Your task to perform on an android device: turn off airplane mode Image 0: 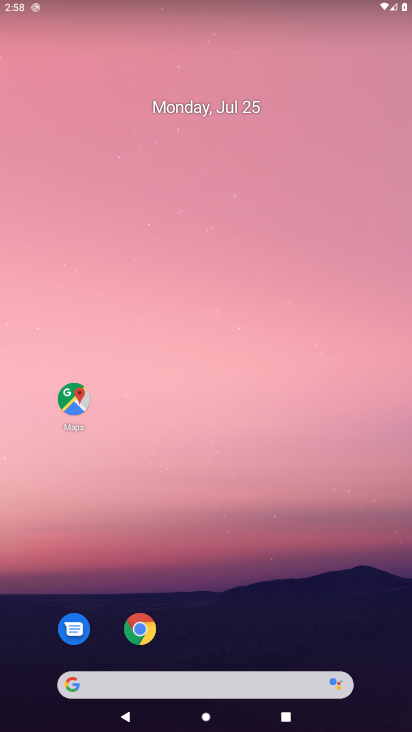
Step 0: drag from (123, 429) to (192, 13)
Your task to perform on an android device: turn off airplane mode Image 1: 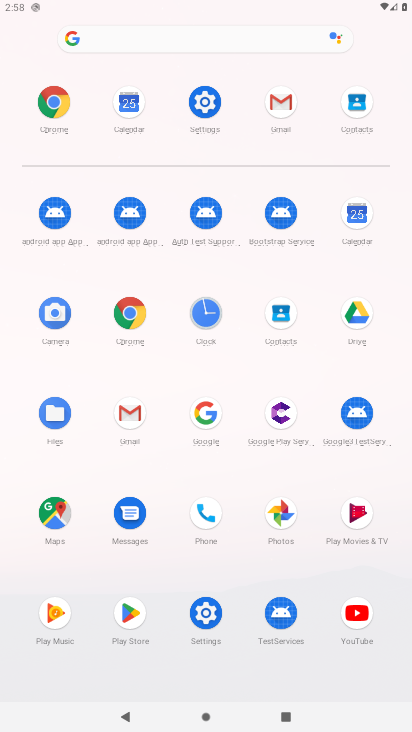
Step 1: click (203, 607)
Your task to perform on an android device: turn off airplane mode Image 2: 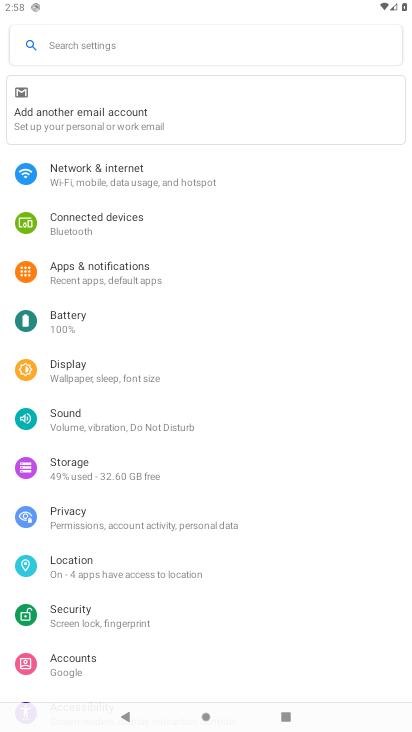
Step 2: click (105, 101)
Your task to perform on an android device: turn off airplane mode Image 3: 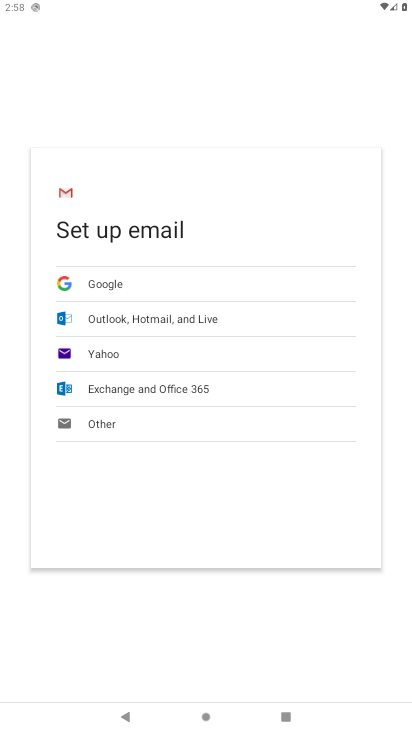
Step 3: press back button
Your task to perform on an android device: turn off airplane mode Image 4: 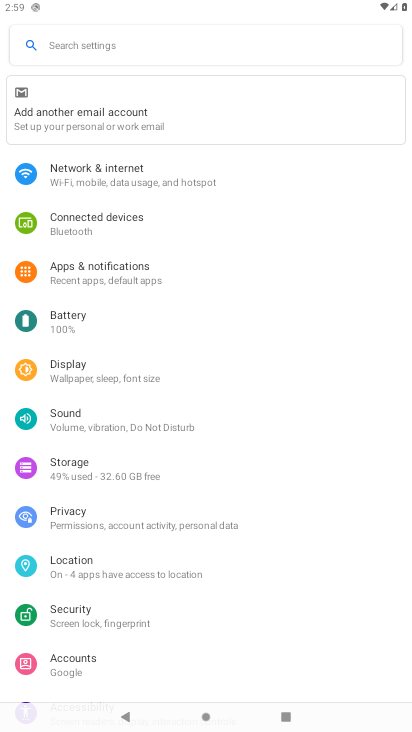
Step 4: click (84, 168)
Your task to perform on an android device: turn off airplane mode Image 5: 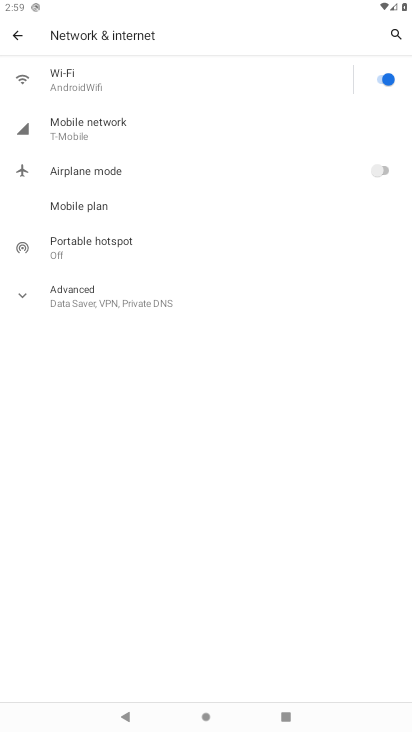
Step 5: task complete